Your task to perform on an android device: turn on airplane mode Image 0: 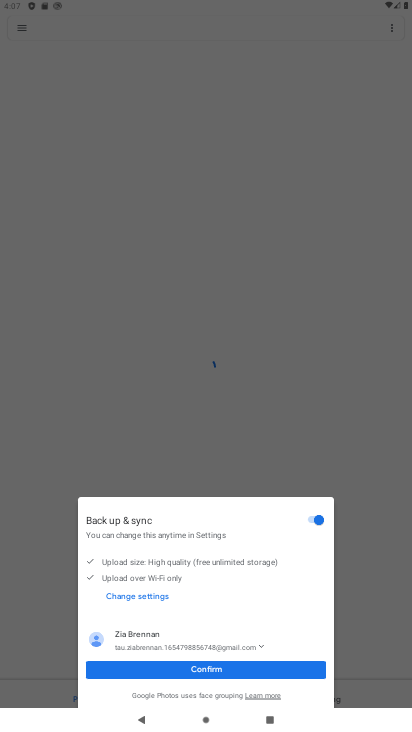
Step 0: press home button
Your task to perform on an android device: turn on airplane mode Image 1: 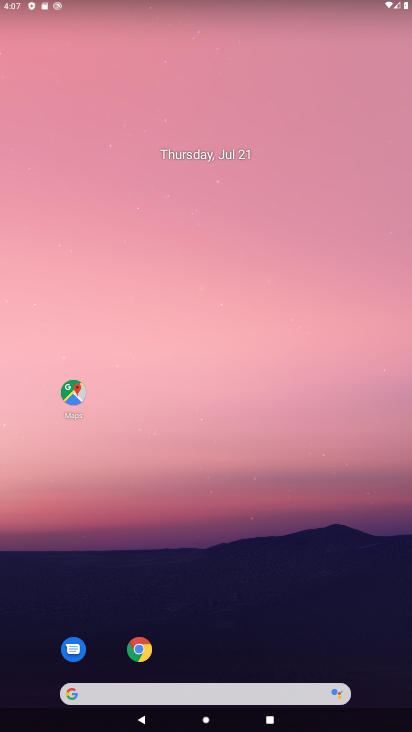
Step 1: drag from (181, 513) to (154, 10)
Your task to perform on an android device: turn on airplane mode Image 2: 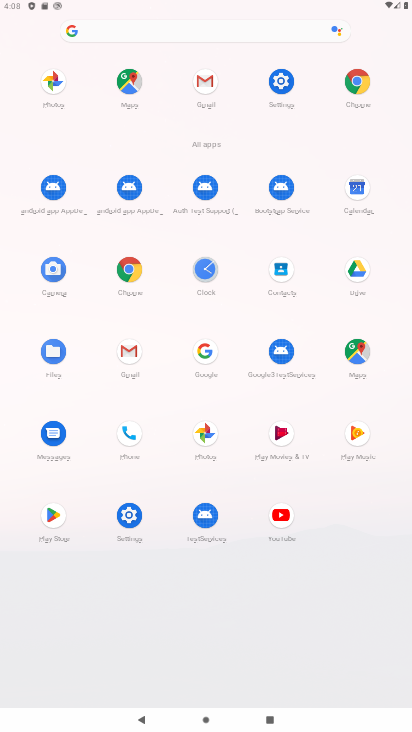
Step 2: click (131, 519)
Your task to perform on an android device: turn on airplane mode Image 3: 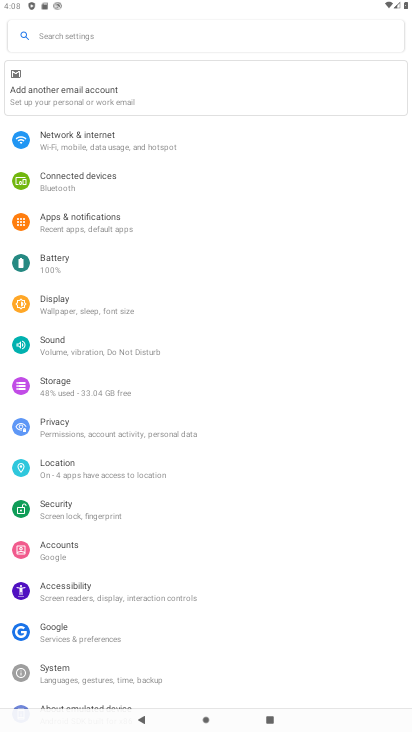
Step 3: click (226, 138)
Your task to perform on an android device: turn on airplane mode Image 4: 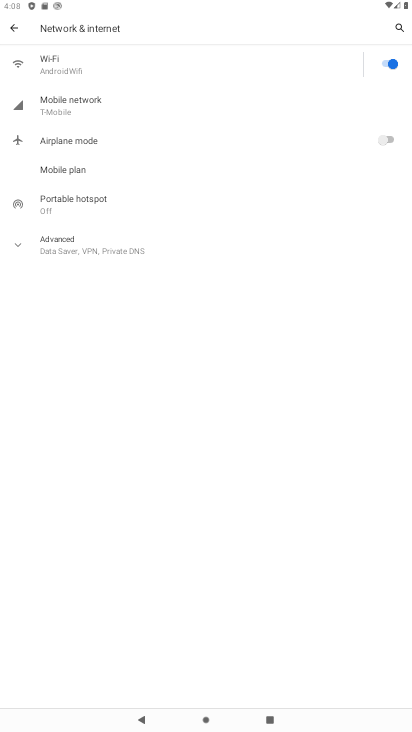
Step 4: click (388, 141)
Your task to perform on an android device: turn on airplane mode Image 5: 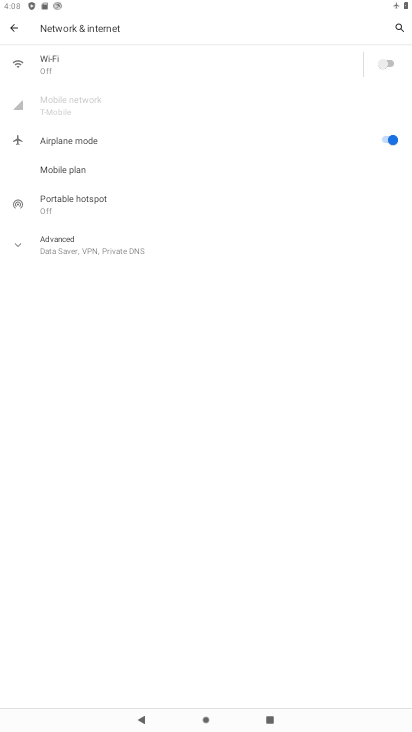
Step 5: task complete